Your task to perform on an android device: Go to battery settings Image 0: 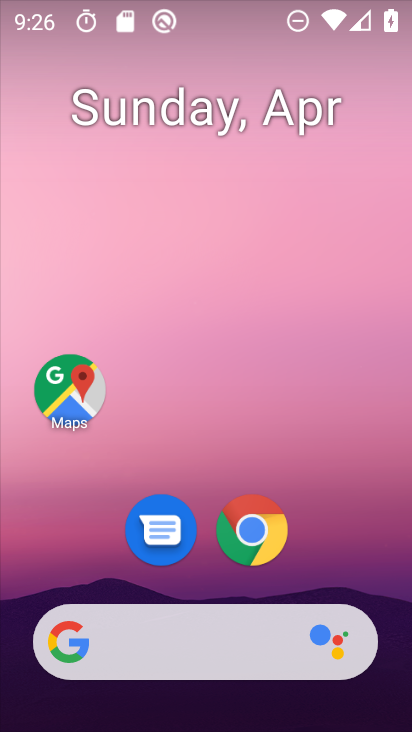
Step 0: drag from (363, 561) to (402, 96)
Your task to perform on an android device: Go to battery settings Image 1: 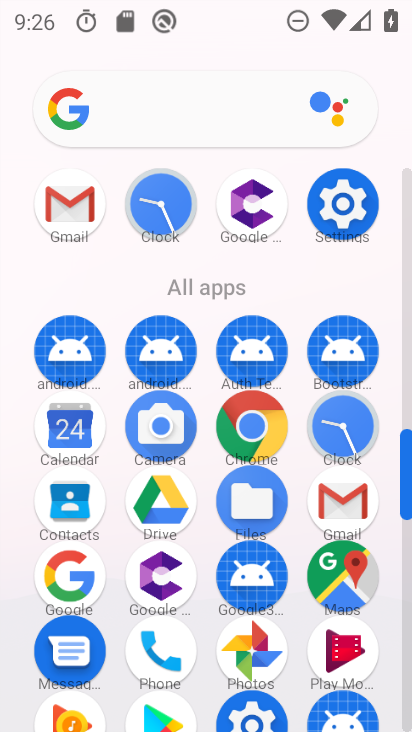
Step 1: click (345, 205)
Your task to perform on an android device: Go to battery settings Image 2: 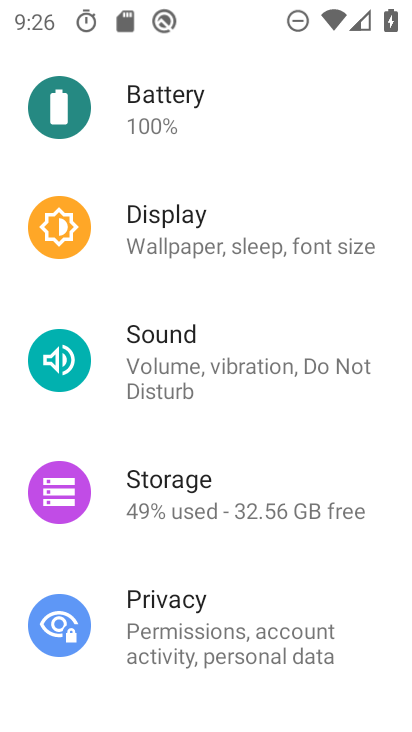
Step 2: click (147, 111)
Your task to perform on an android device: Go to battery settings Image 3: 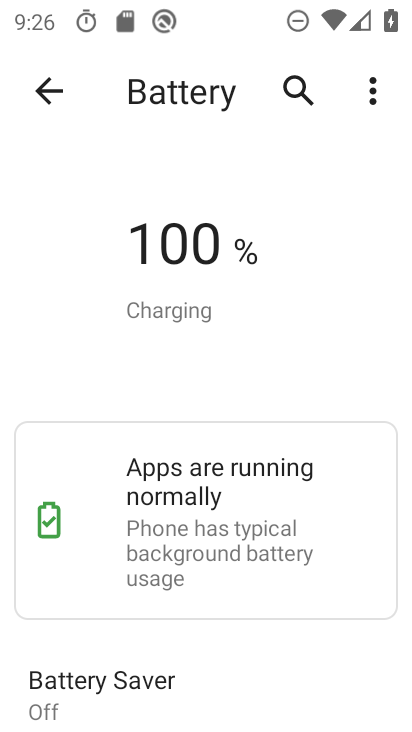
Step 3: task complete